Your task to perform on an android device: Search for "usb-b" on target, select the first entry, add it to the cart, then select checkout. Image 0: 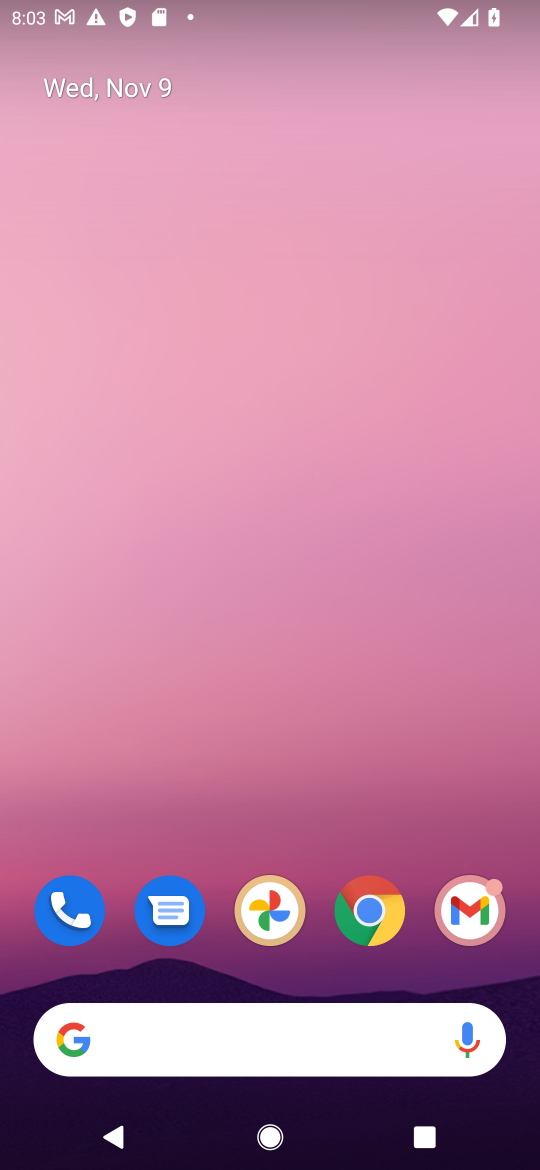
Step 0: click (369, 906)
Your task to perform on an android device: Search for "usb-b" on target, select the first entry, add it to the cart, then select checkout. Image 1: 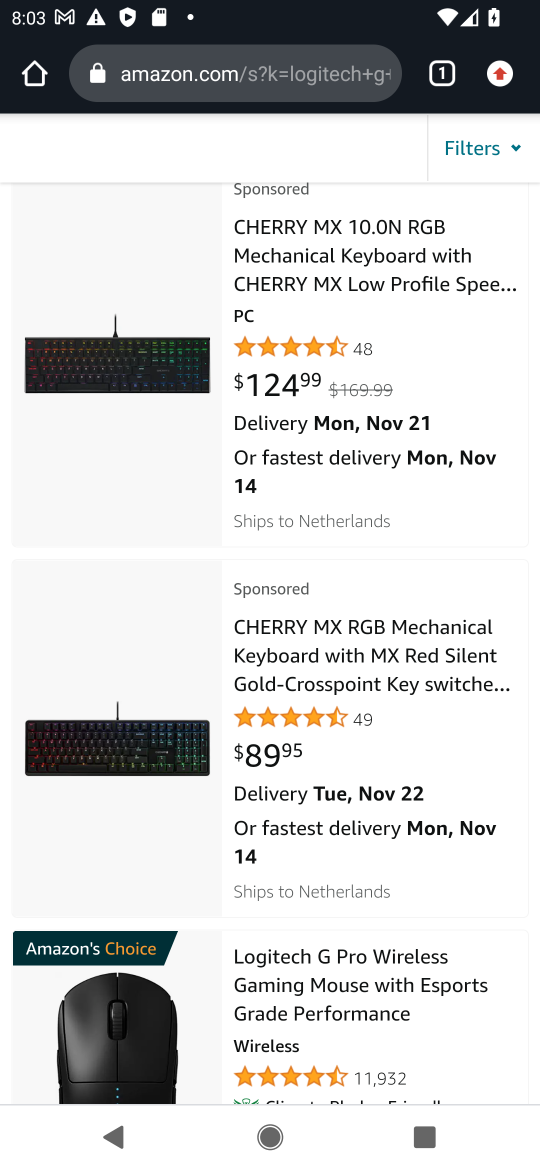
Step 1: click (215, 72)
Your task to perform on an android device: Search for "usb-b" on target, select the first entry, add it to the cart, then select checkout. Image 2: 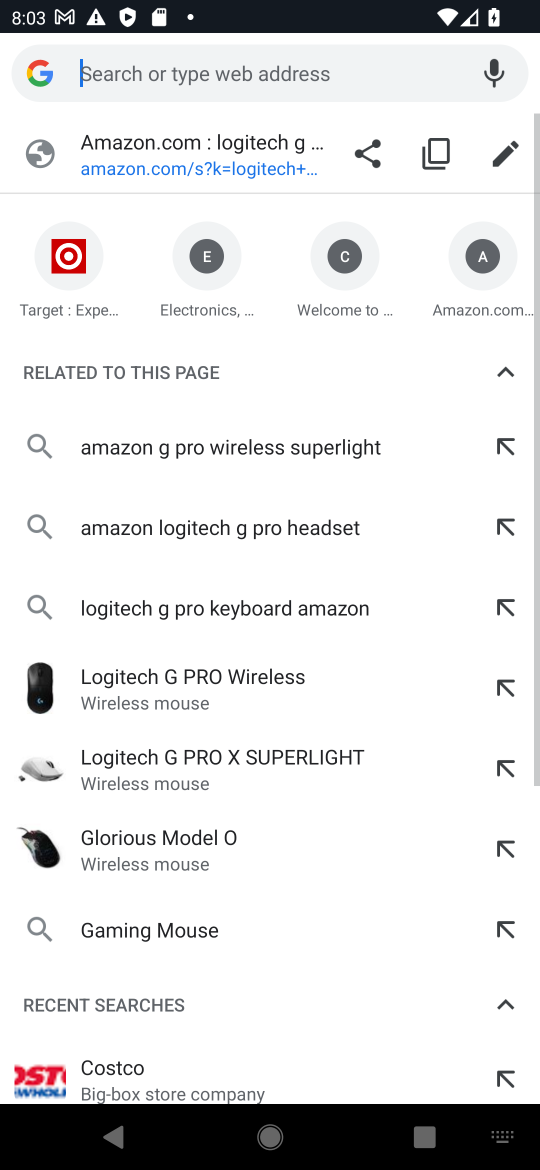
Step 2: click (78, 259)
Your task to perform on an android device: Search for "usb-b" on target, select the first entry, add it to the cart, then select checkout. Image 3: 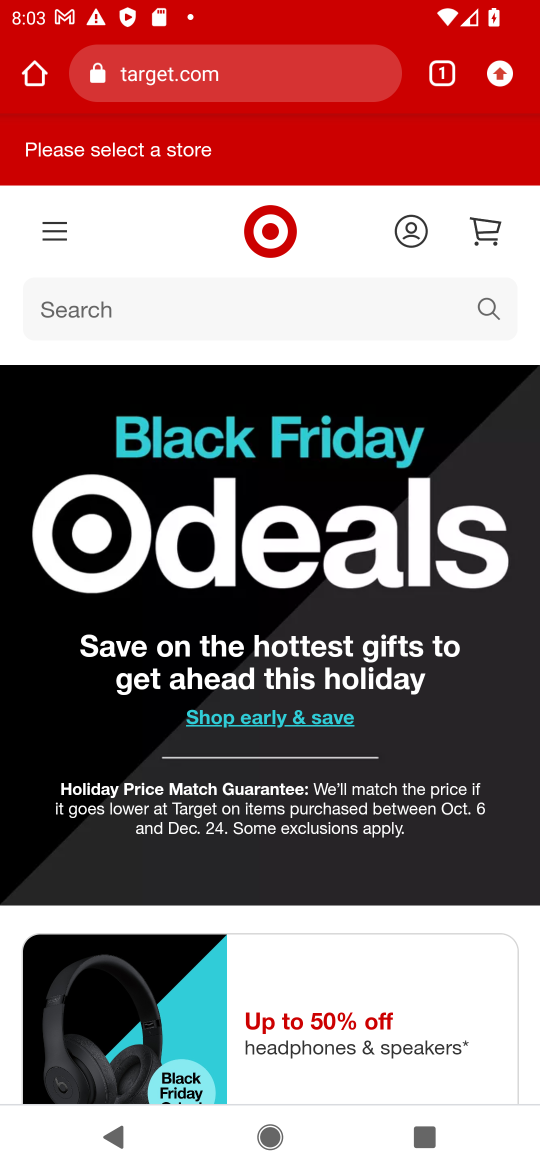
Step 3: click (493, 314)
Your task to perform on an android device: Search for "usb-b" on target, select the first entry, add it to the cart, then select checkout. Image 4: 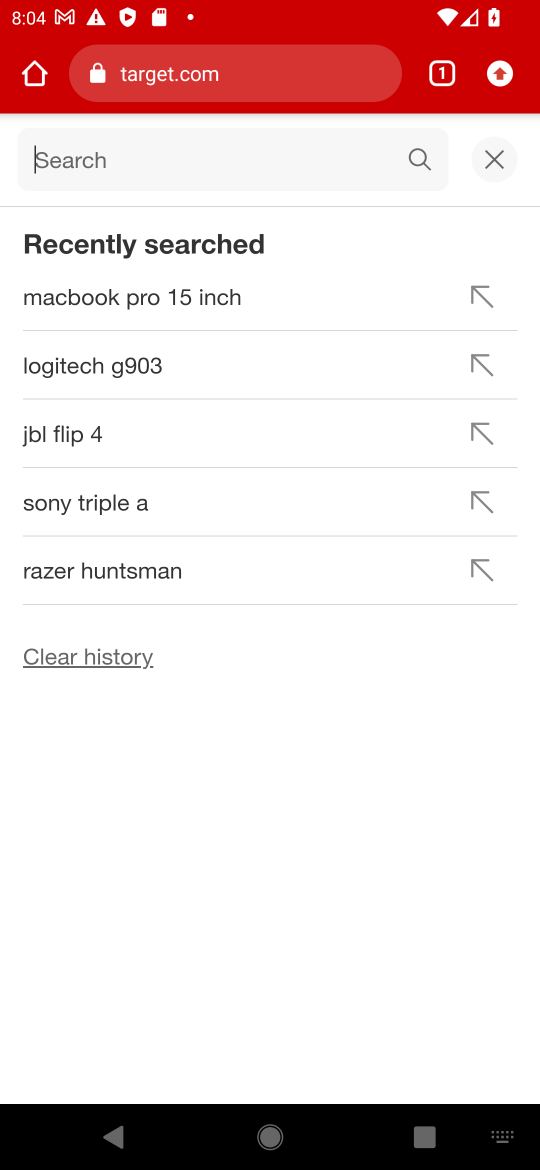
Step 4: type "usb-b"
Your task to perform on an android device: Search for "usb-b" on target, select the first entry, add it to the cart, then select checkout. Image 5: 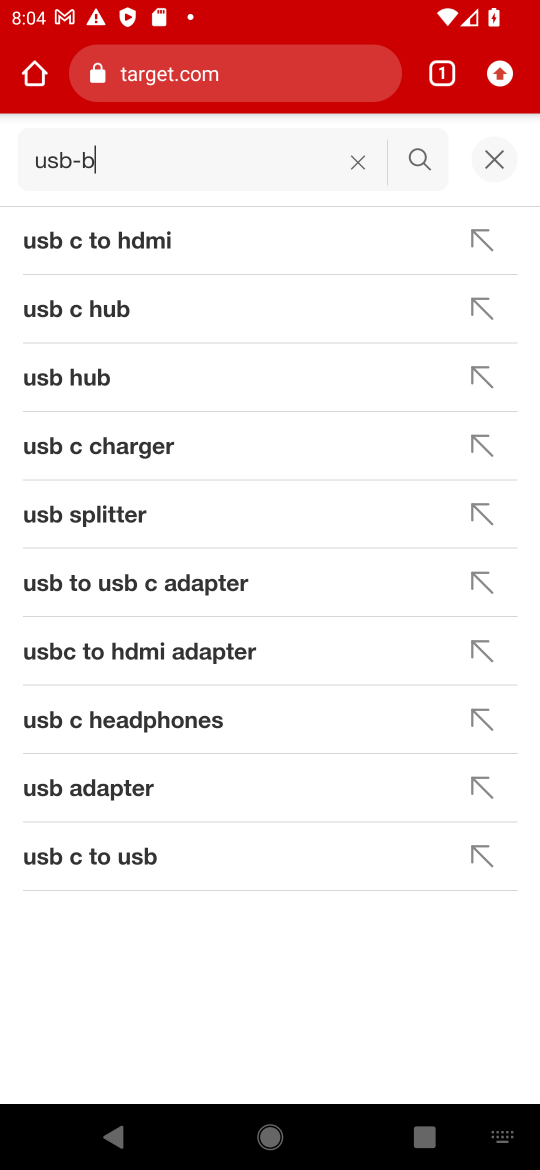
Step 5: click (407, 168)
Your task to perform on an android device: Search for "usb-b" on target, select the first entry, add it to the cart, then select checkout. Image 6: 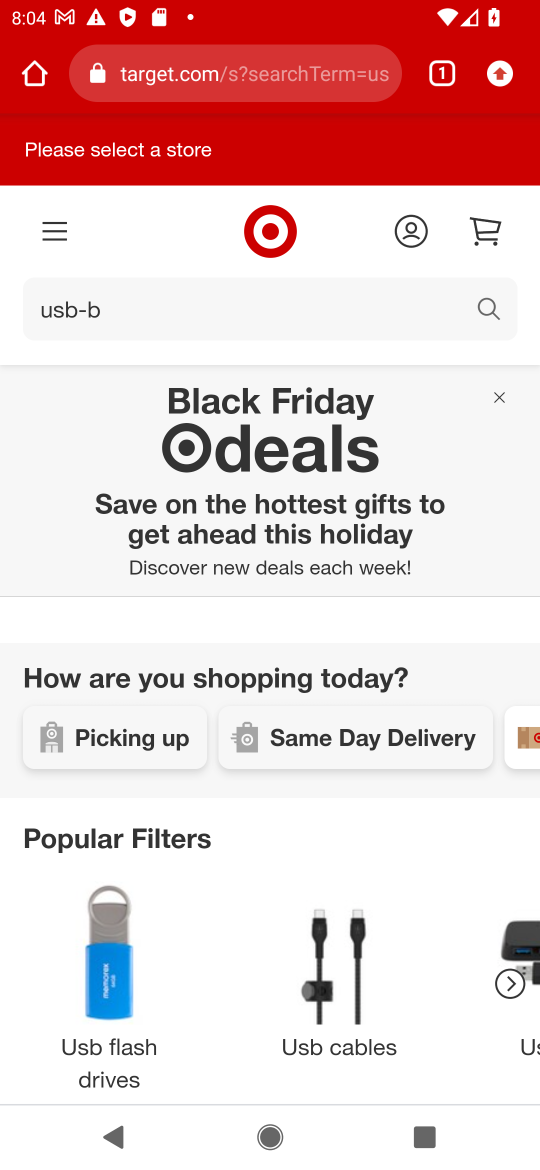
Step 6: drag from (288, 905) to (266, 379)
Your task to perform on an android device: Search for "usb-b" on target, select the first entry, add it to the cart, then select checkout. Image 7: 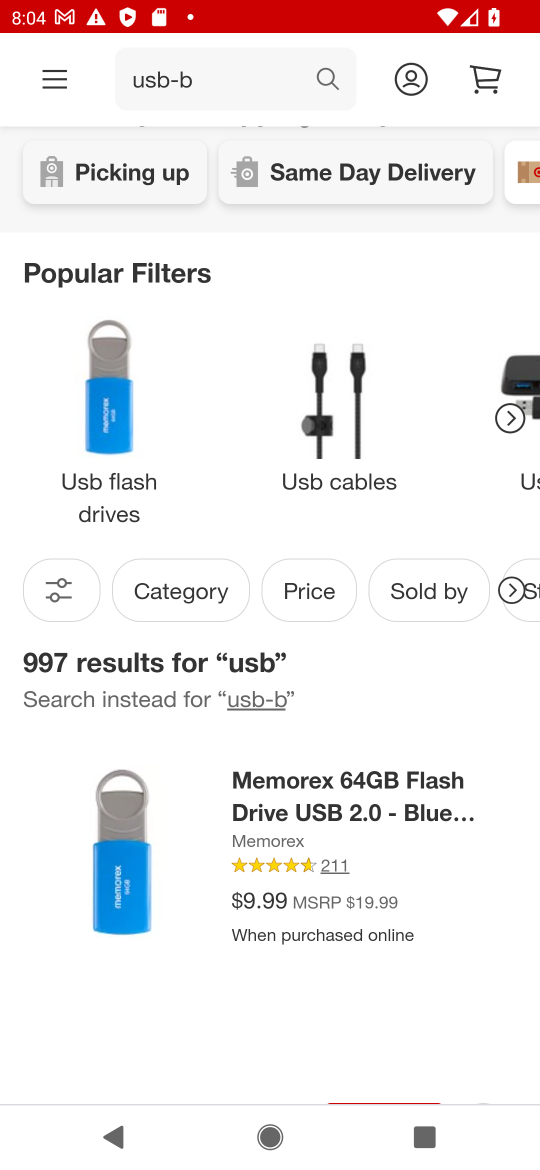
Step 7: drag from (225, 828) to (244, 535)
Your task to perform on an android device: Search for "usb-b" on target, select the first entry, add it to the cart, then select checkout. Image 8: 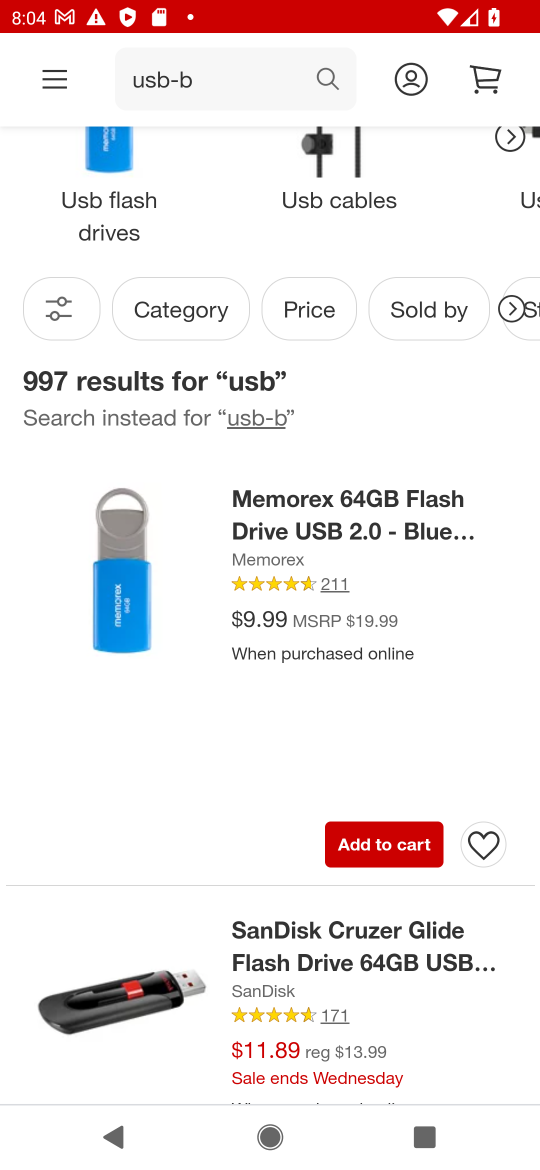
Step 8: click (124, 638)
Your task to perform on an android device: Search for "usb-b" on target, select the first entry, add it to the cart, then select checkout. Image 9: 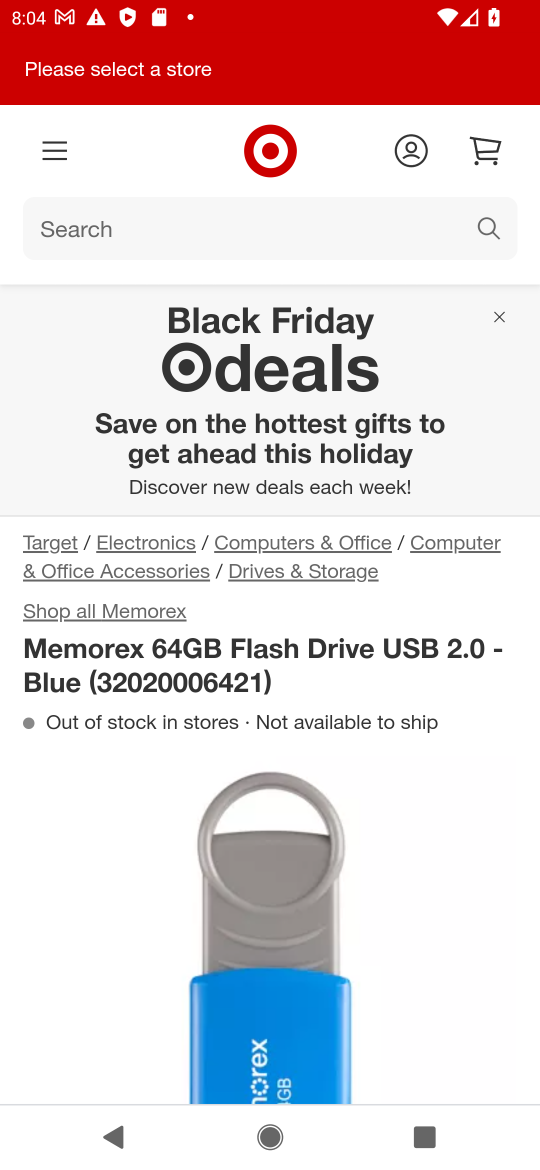
Step 9: task complete